Your task to perform on an android device: turn on priority inbox in the gmail app Image 0: 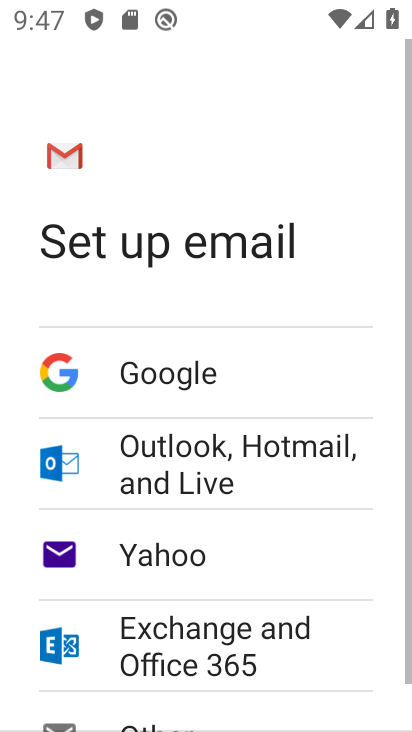
Step 0: press home button
Your task to perform on an android device: turn on priority inbox in the gmail app Image 1: 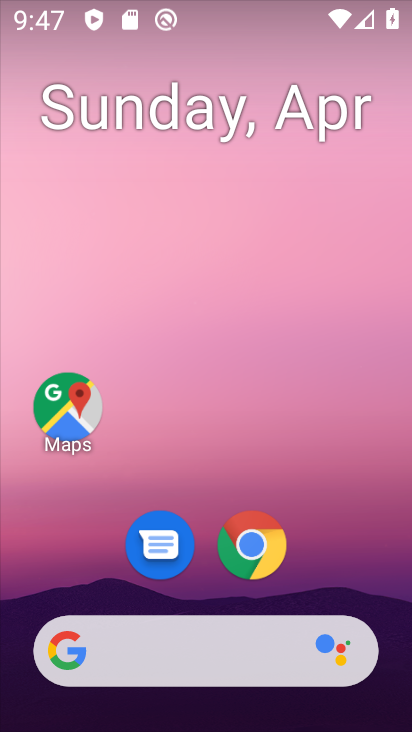
Step 1: drag from (370, 565) to (383, 155)
Your task to perform on an android device: turn on priority inbox in the gmail app Image 2: 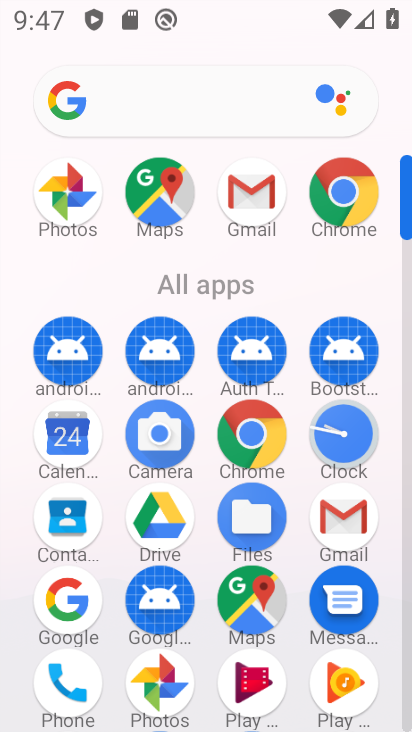
Step 2: click (233, 207)
Your task to perform on an android device: turn on priority inbox in the gmail app Image 3: 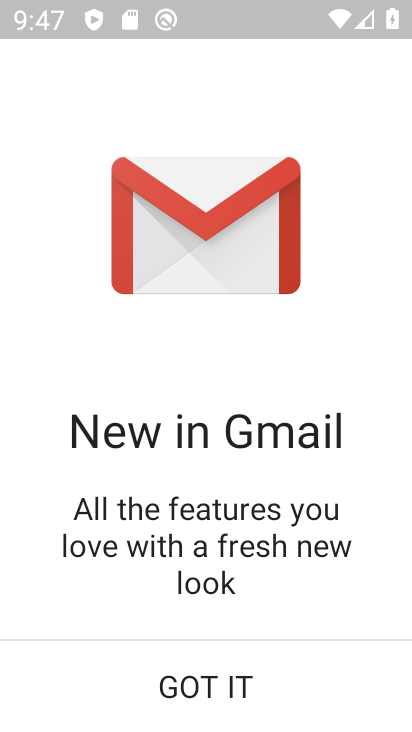
Step 3: click (218, 700)
Your task to perform on an android device: turn on priority inbox in the gmail app Image 4: 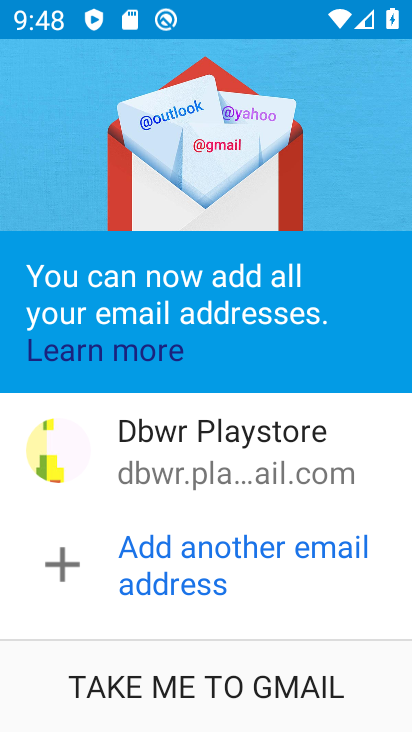
Step 4: click (218, 700)
Your task to perform on an android device: turn on priority inbox in the gmail app Image 5: 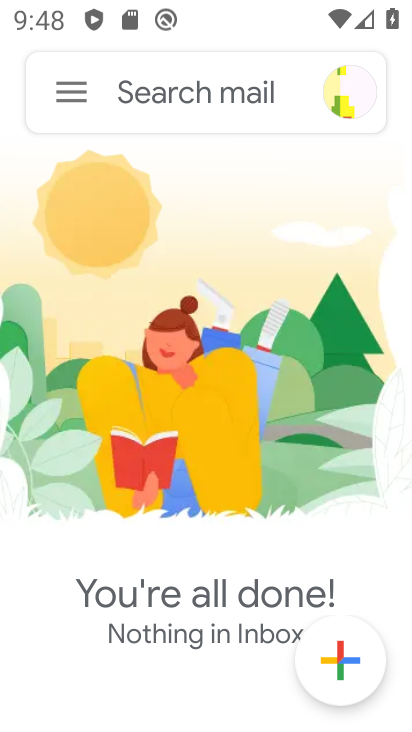
Step 5: click (73, 102)
Your task to perform on an android device: turn on priority inbox in the gmail app Image 6: 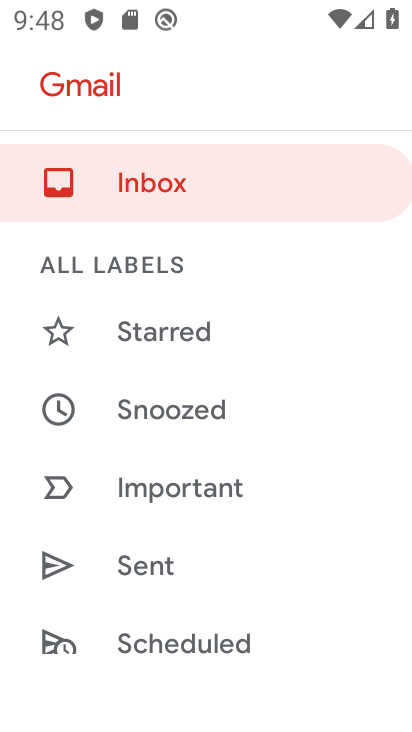
Step 6: drag from (322, 597) to (323, 252)
Your task to perform on an android device: turn on priority inbox in the gmail app Image 7: 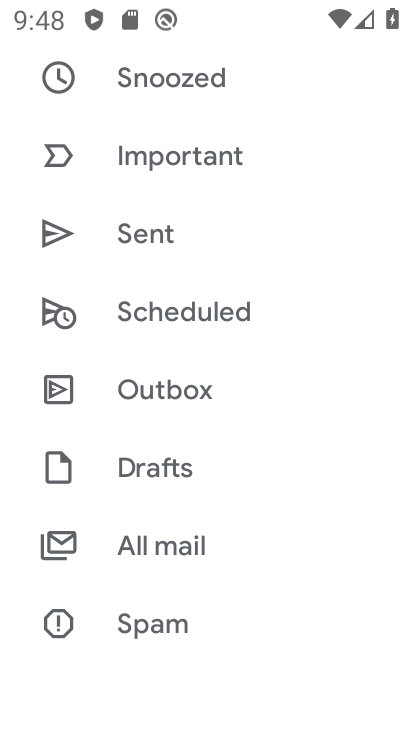
Step 7: drag from (328, 539) to (277, 266)
Your task to perform on an android device: turn on priority inbox in the gmail app Image 8: 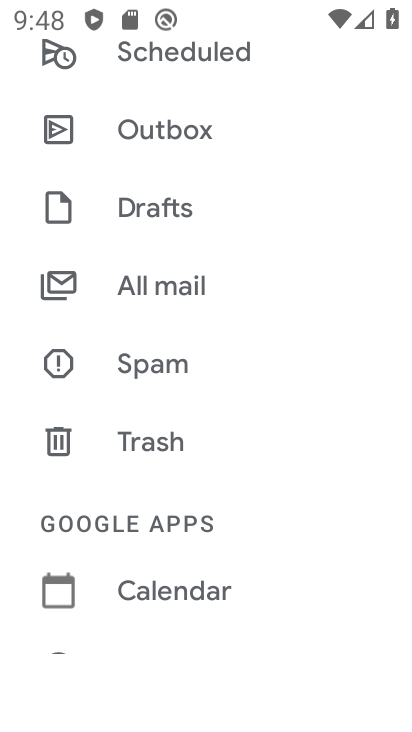
Step 8: drag from (294, 503) to (269, 232)
Your task to perform on an android device: turn on priority inbox in the gmail app Image 9: 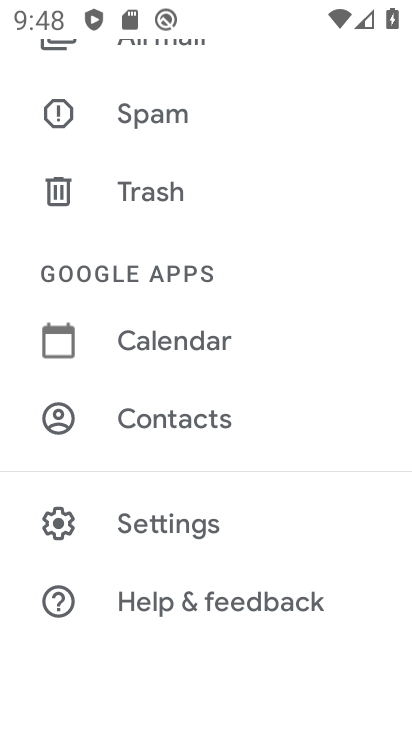
Step 9: click (270, 530)
Your task to perform on an android device: turn on priority inbox in the gmail app Image 10: 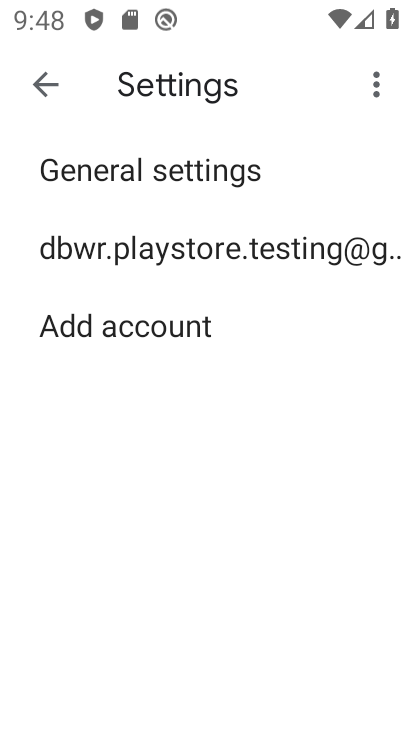
Step 10: click (292, 256)
Your task to perform on an android device: turn on priority inbox in the gmail app Image 11: 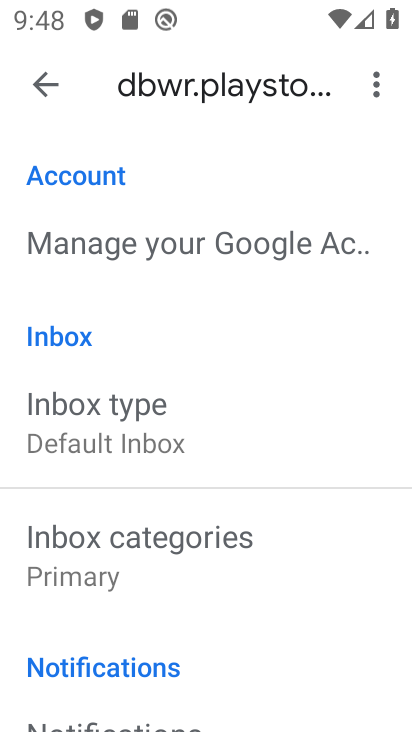
Step 11: click (237, 434)
Your task to perform on an android device: turn on priority inbox in the gmail app Image 12: 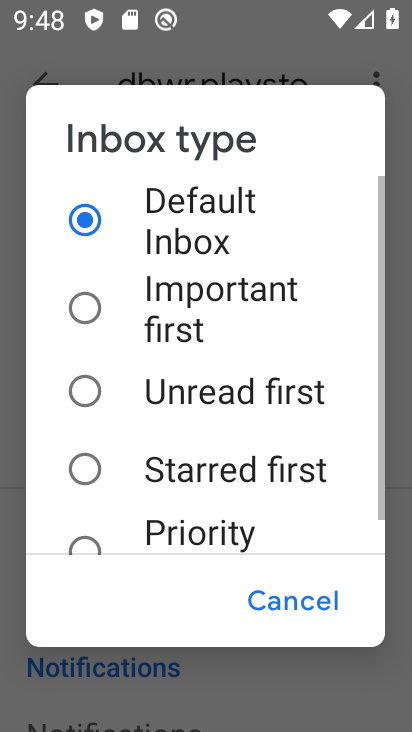
Step 12: click (235, 540)
Your task to perform on an android device: turn on priority inbox in the gmail app Image 13: 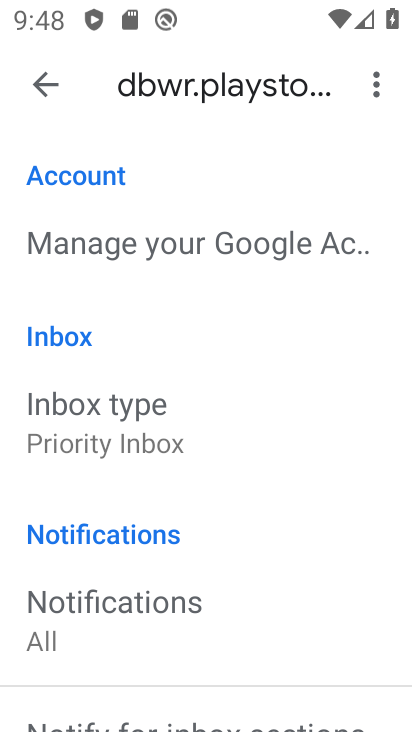
Step 13: task complete